Your task to perform on an android device: turn off location Image 0: 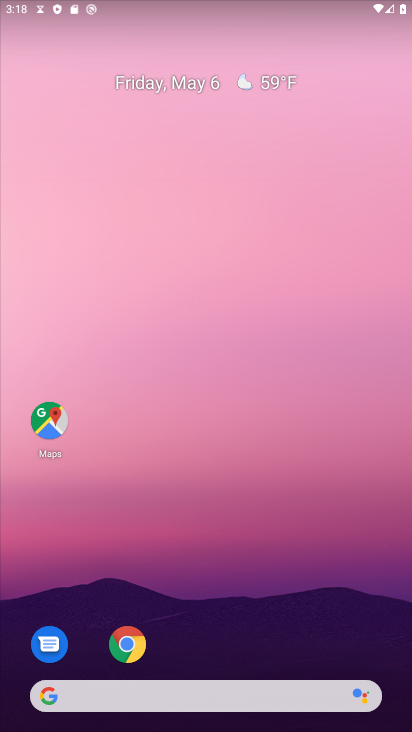
Step 0: drag from (250, 614) to (190, 73)
Your task to perform on an android device: turn off location Image 1: 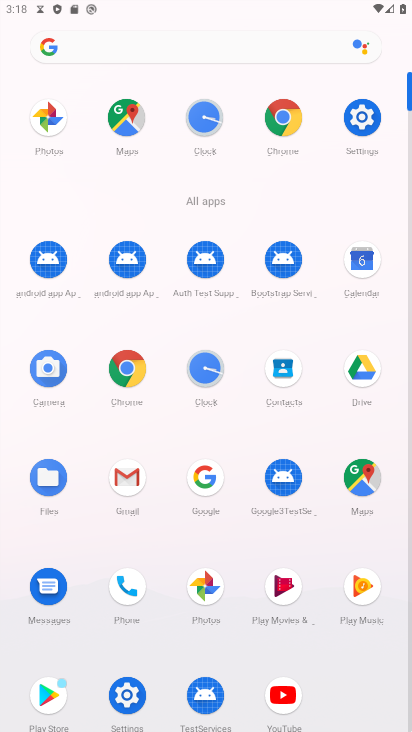
Step 1: click (362, 115)
Your task to perform on an android device: turn off location Image 2: 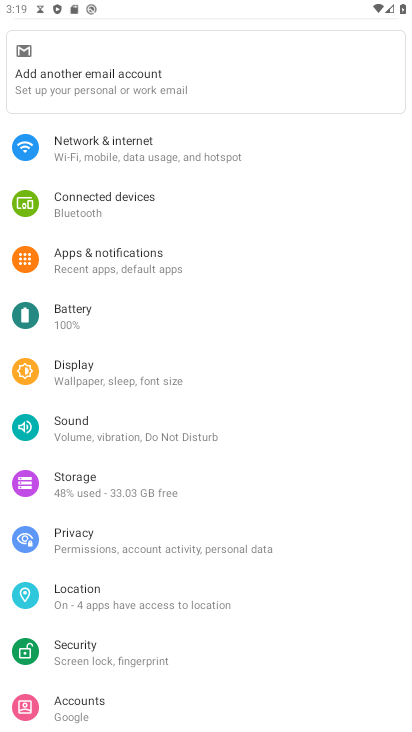
Step 2: click (79, 591)
Your task to perform on an android device: turn off location Image 3: 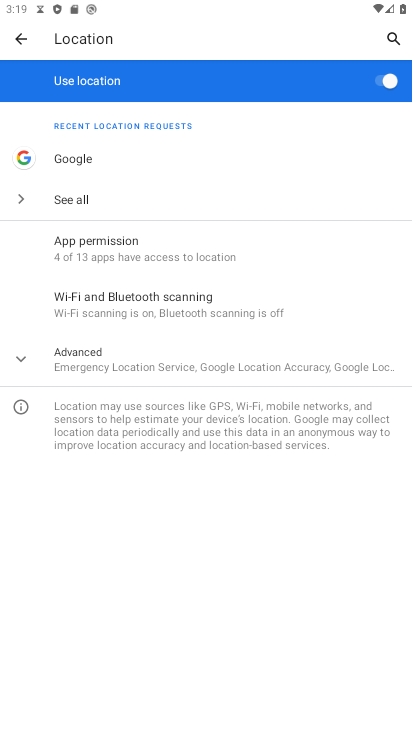
Step 3: click (389, 82)
Your task to perform on an android device: turn off location Image 4: 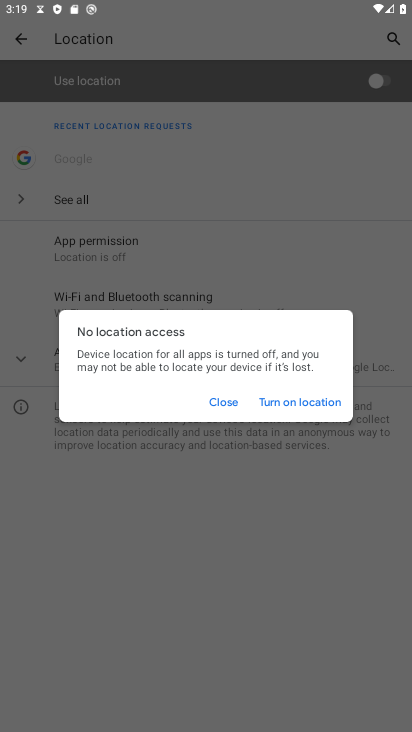
Step 4: click (223, 401)
Your task to perform on an android device: turn off location Image 5: 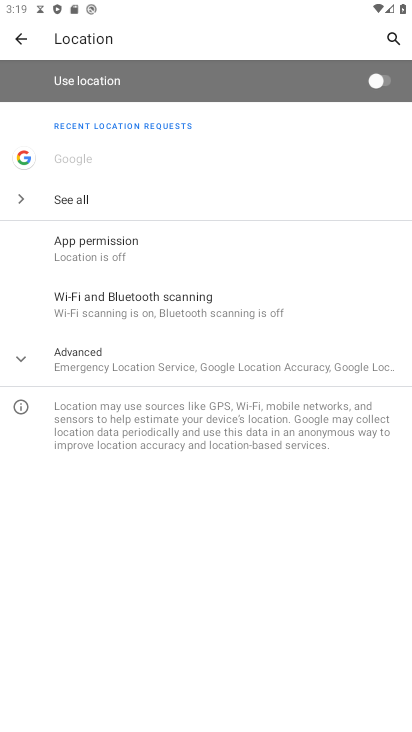
Step 5: task complete